Your task to perform on an android device: Go to Wikipedia Image 0: 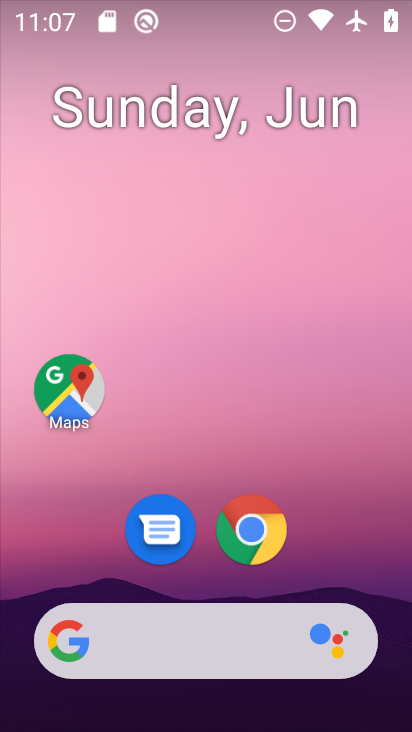
Step 0: click (248, 525)
Your task to perform on an android device: Go to Wikipedia Image 1: 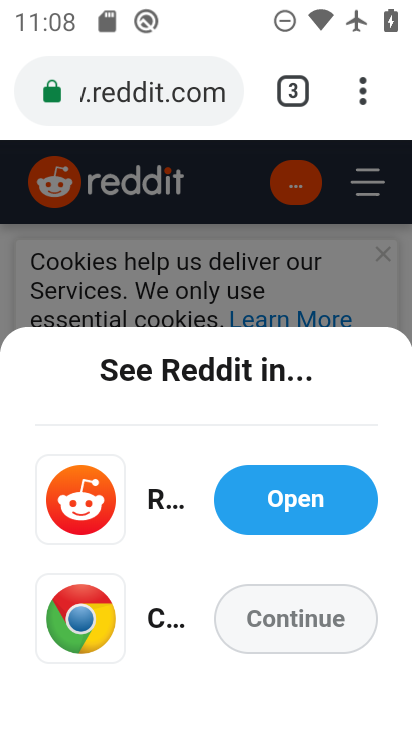
Step 1: click (231, 90)
Your task to perform on an android device: Go to Wikipedia Image 2: 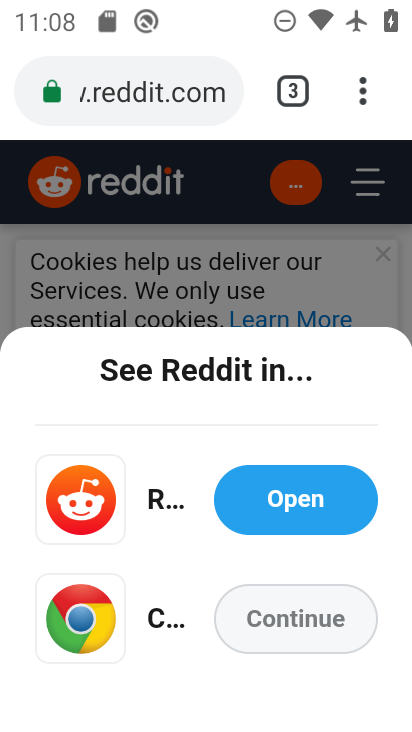
Step 2: click (209, 71)
Your task to perform on an android device: Go to Wikipedia Image 3: 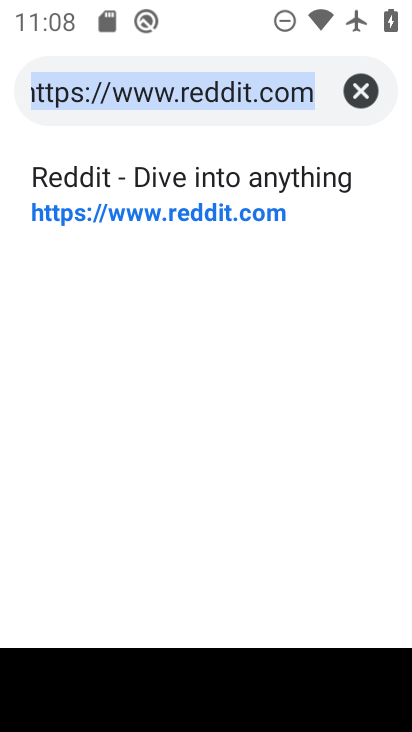
Step 3: click (357, 88)
Your task to perform on an android device: Go to Wikipedia Image 4: 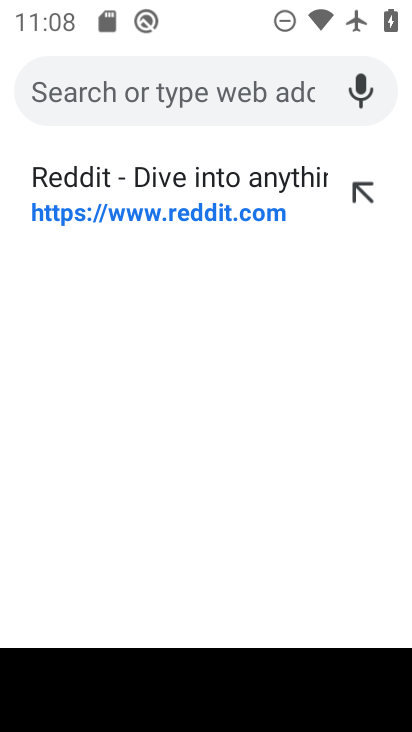
Step 4: type "wikipedia"
Your task to perform on an android device: Go to Wikipedia Image 5: 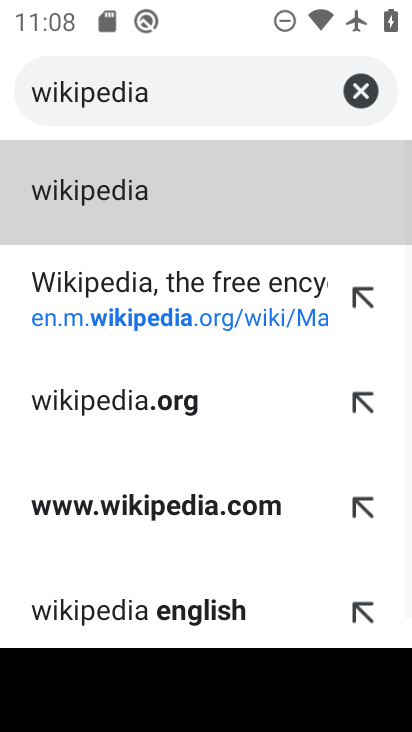
Step 5: click (107, 199)
Your task to perform on an android device: Go to Wikipedia Image 6: 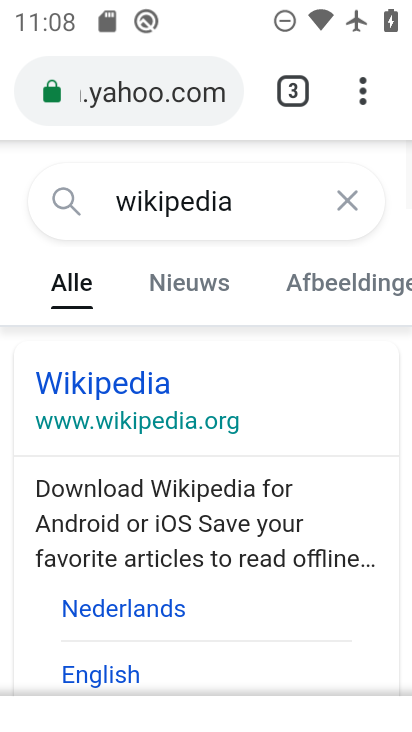
Step 6: drag from (224, 632) to (251, 267)
Your task to perform on an android device: Go to Wikipedia Image 7: 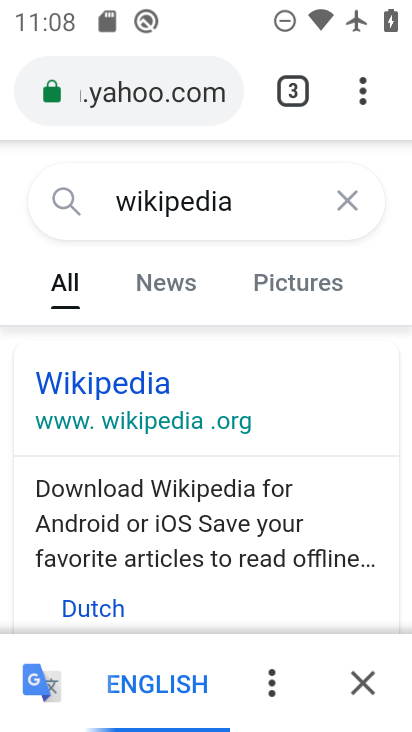
Step 7: click (107, 383)
Your task to perform on an android device: Go to Wikipedia Image 8: 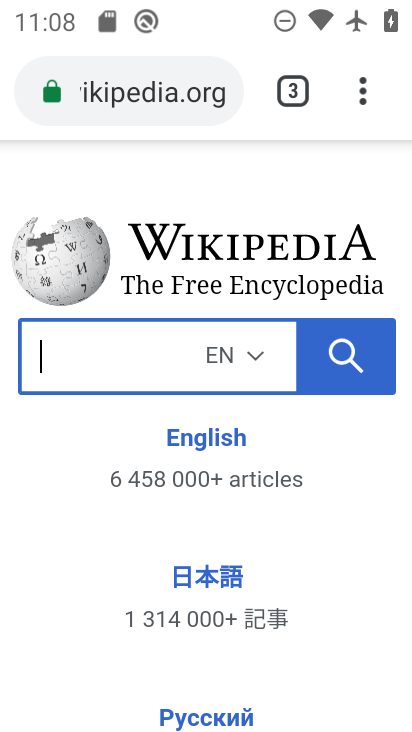
Step 8: task complete